Your task to perform on an android device: uninstall "Pluto TV - Live TV and Movies" Image 0: 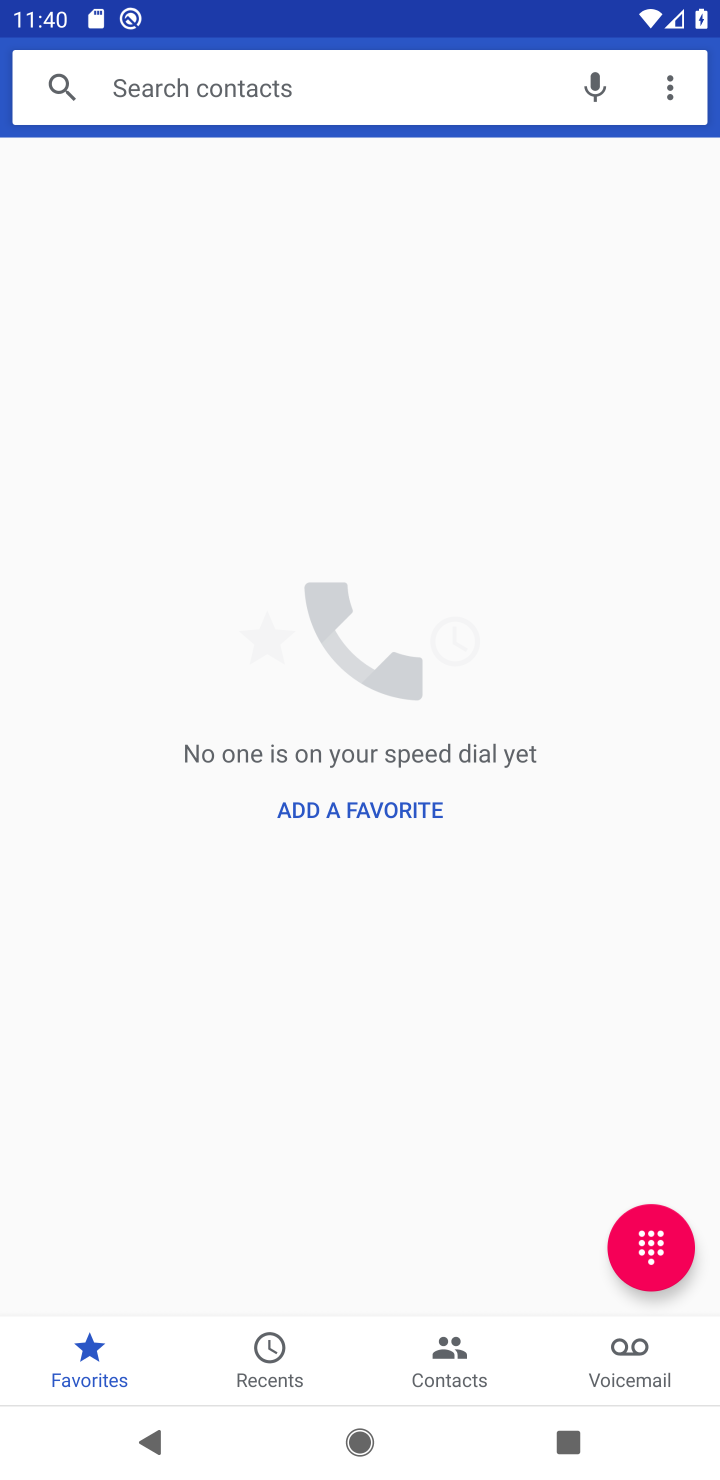
Step 0: press home button
Your task to perform on an android device: uninstall "Pluto TV - Live TV and Movies" Image 1: 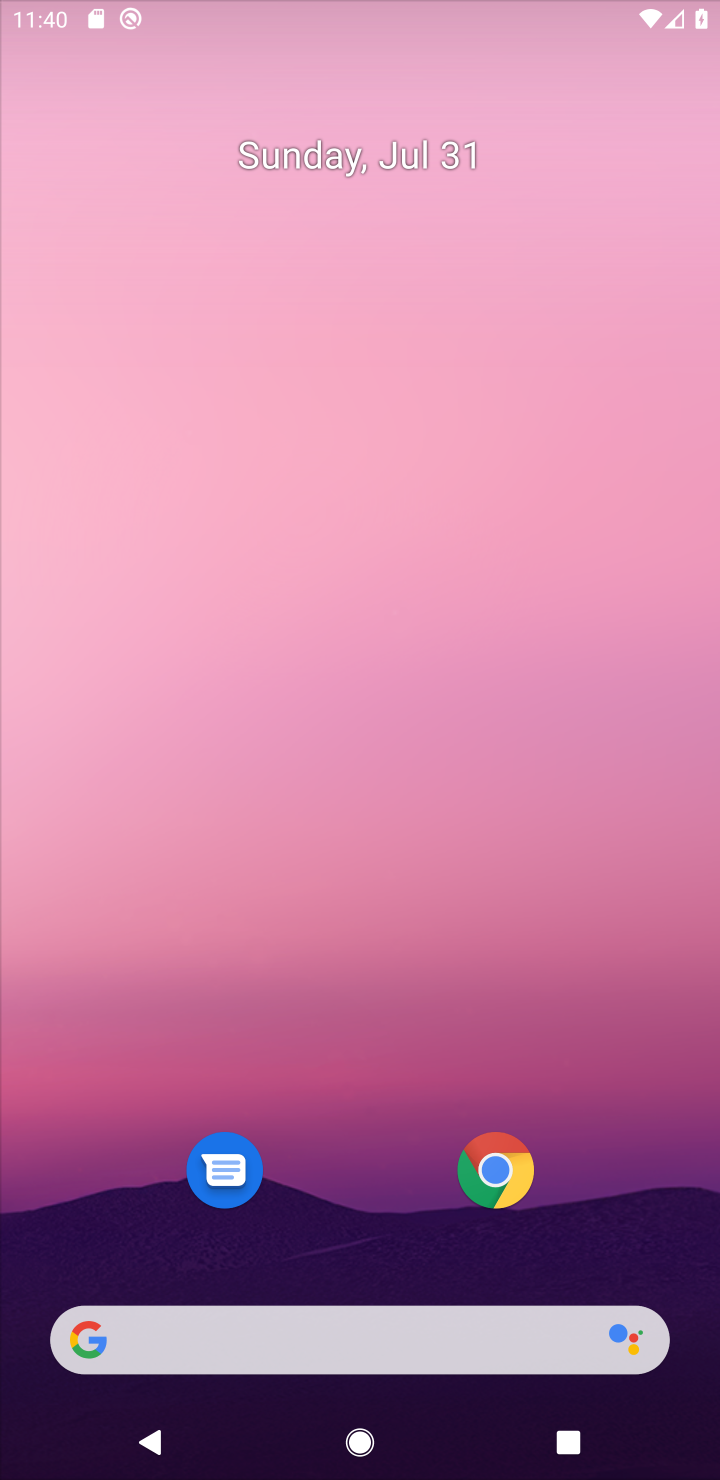
Step 1: drag from (577, 927) to (300, 66)
Your task to perform on an android device: uninstall "Pluto TV - Live TV and Movies" Image 2: 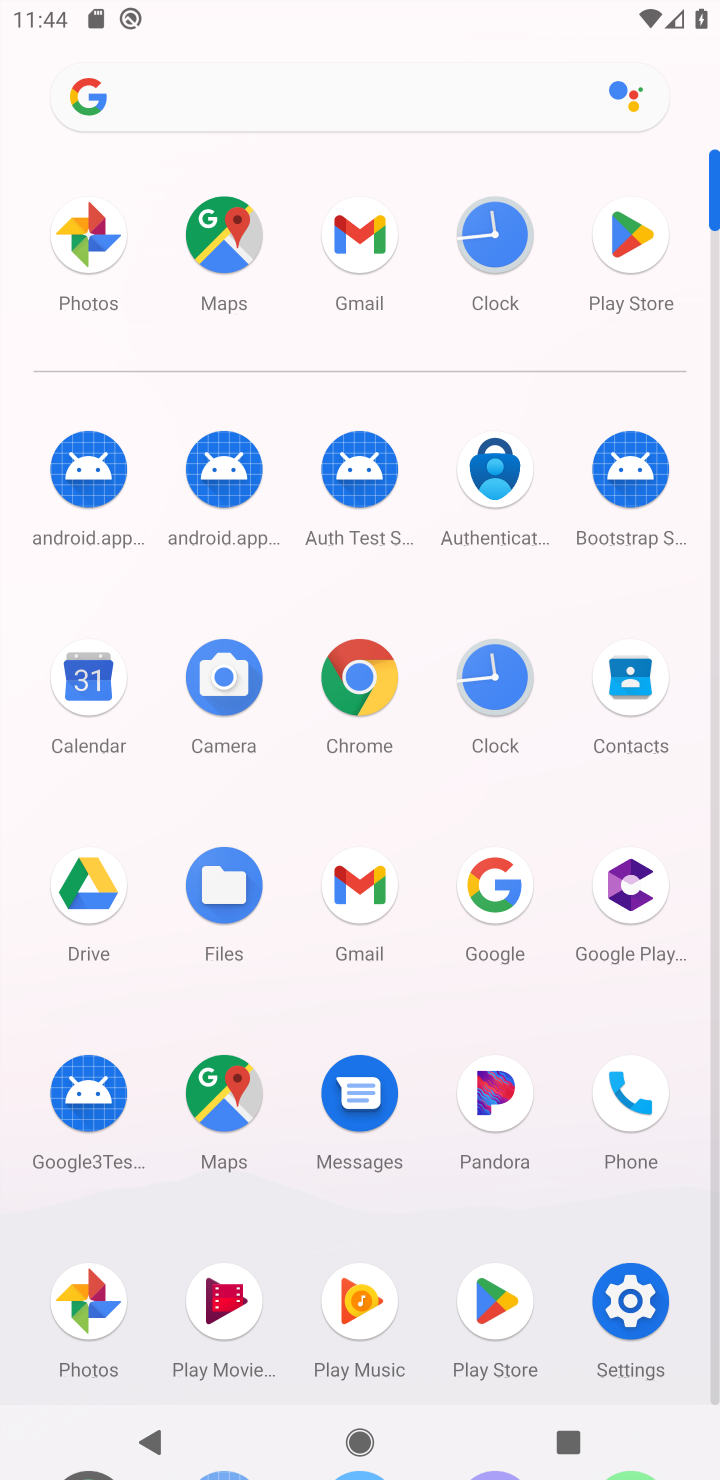
Step 2: click (610, 261)
Your task to perform on an android device: uninstall "Pluto TV - Live TV and Movies" Image 3: 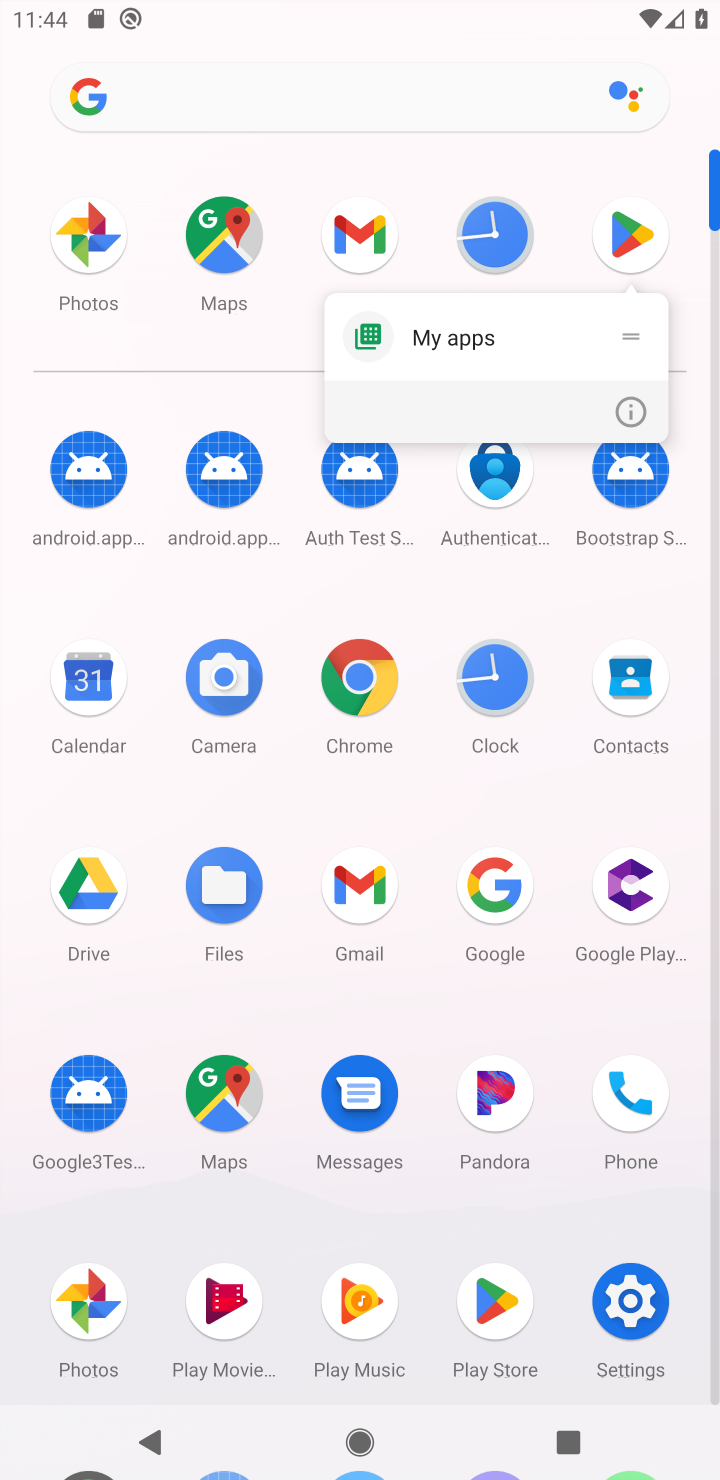
Step 3: click (605, 261)
Your task to perform on an android device: uninstall "Pluto TV - Live TV and Movies" Image 4: 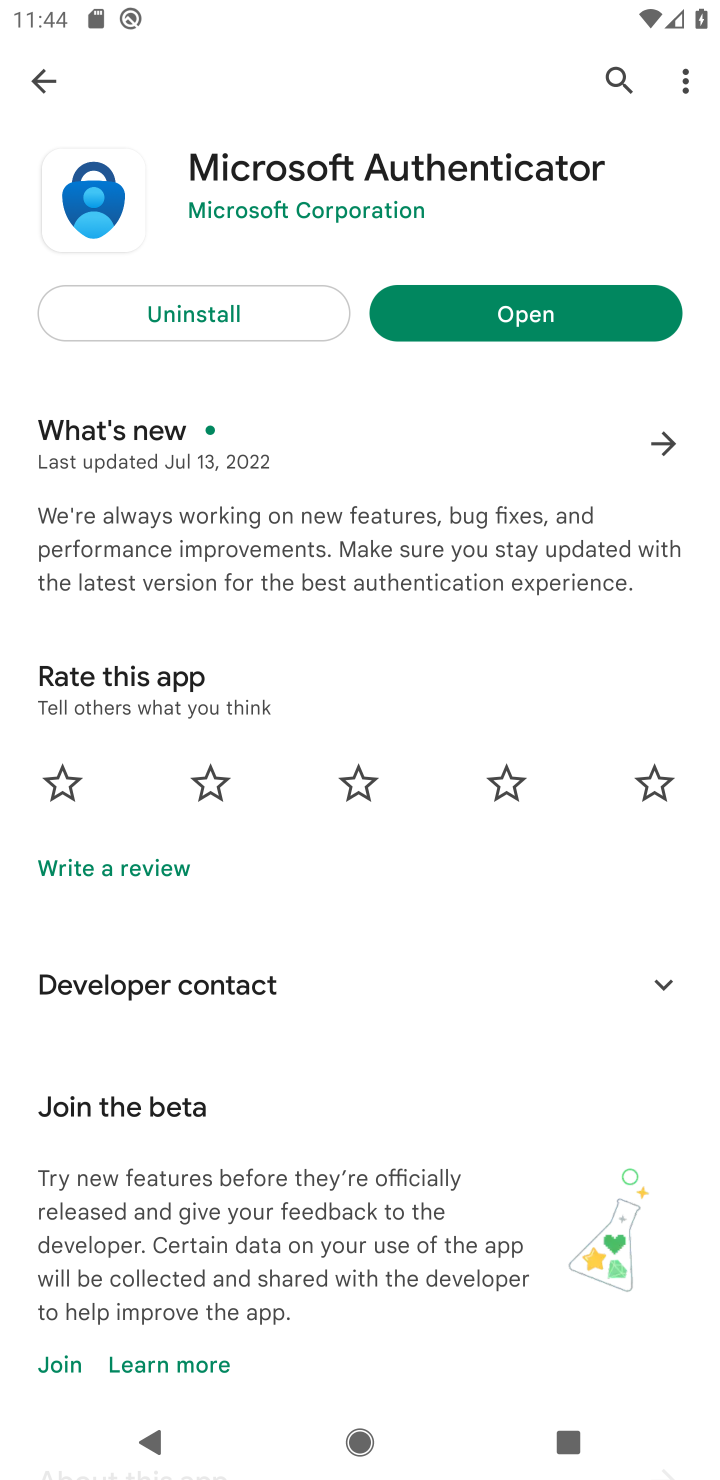
Step 4: press back button
Your task to perform on an android device: uninstall "Pluto TV - Live TV and Movies" Image 5: 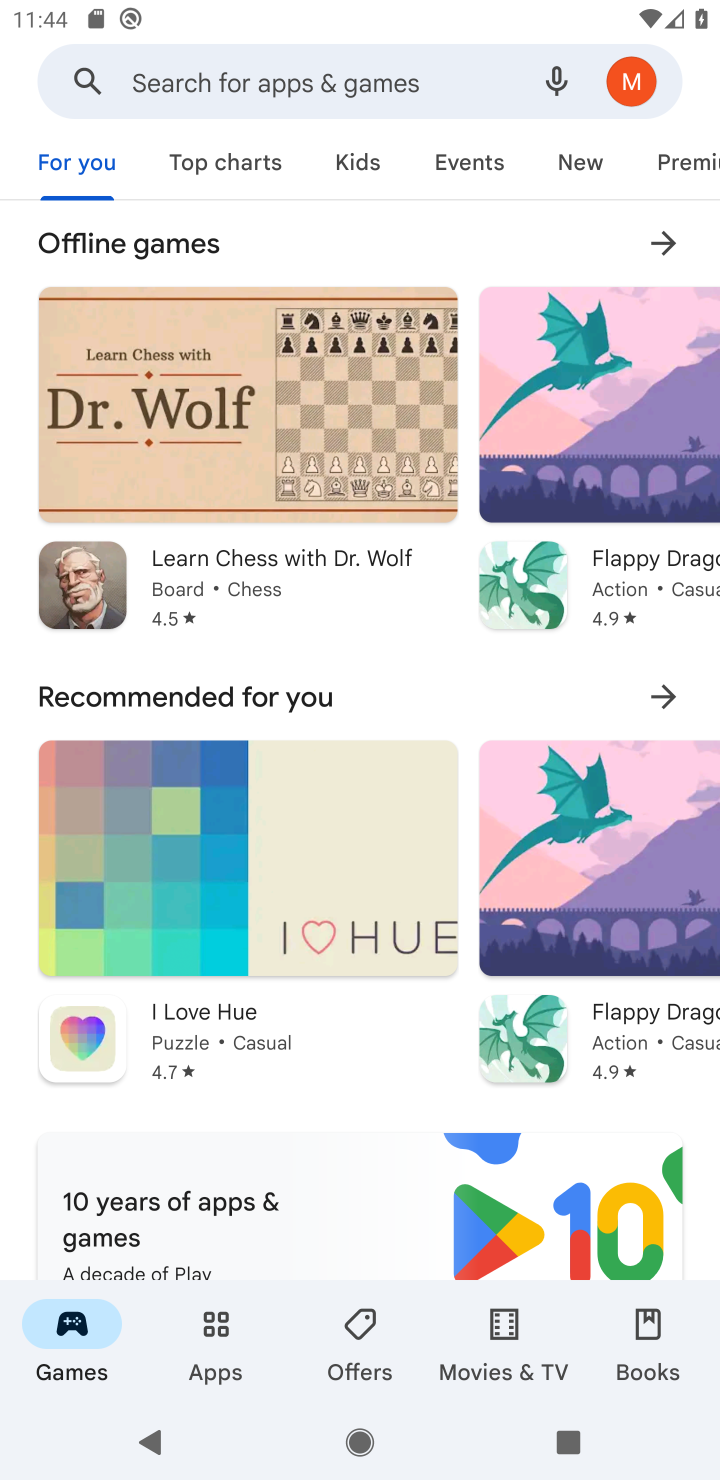
Step 5: click (308, 106)
Your task to perform on an android device: uninstall "Pluto TV - Live TV and Movies" Image 6: 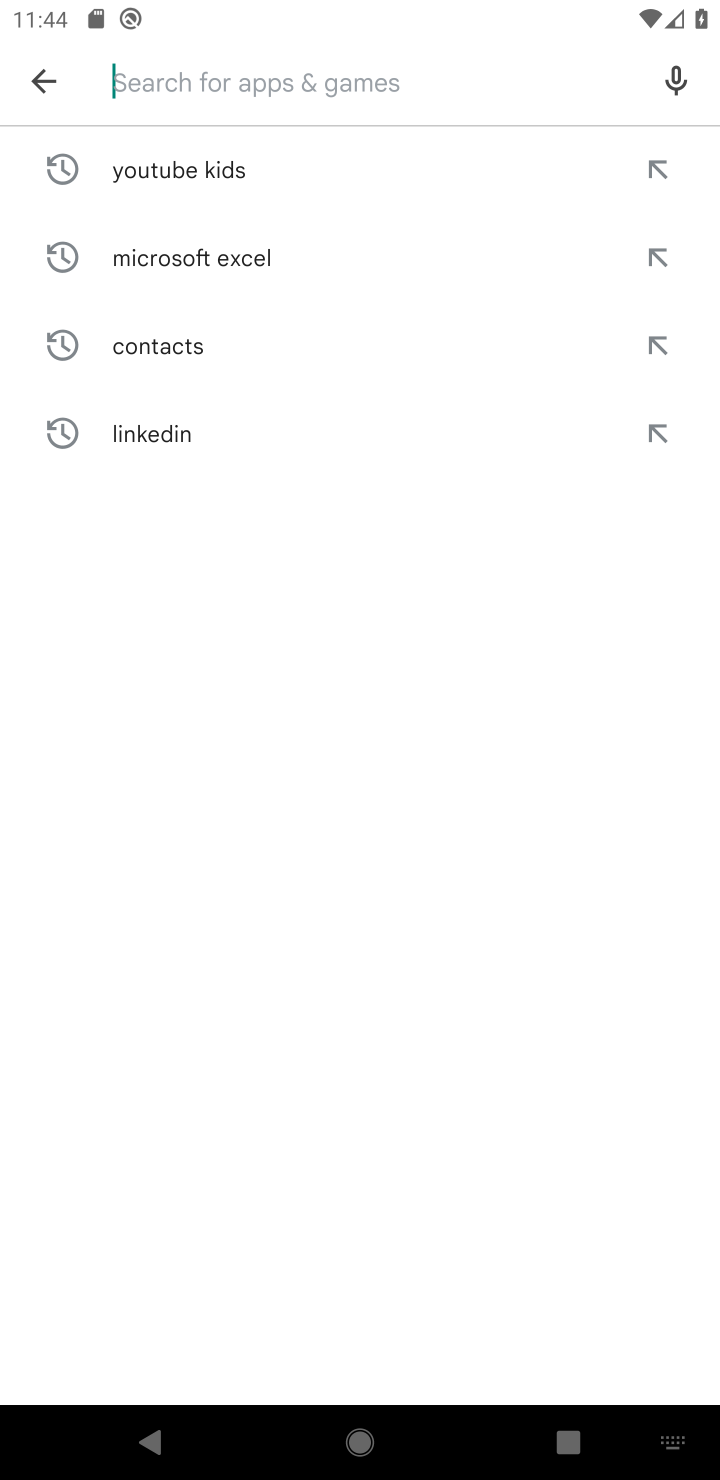
Step 6: type "Pluto TV - Live TV and Movies"
Your task to perform on an android device: uninstall "Pluto TV - Live TV and Movies" Image 7: 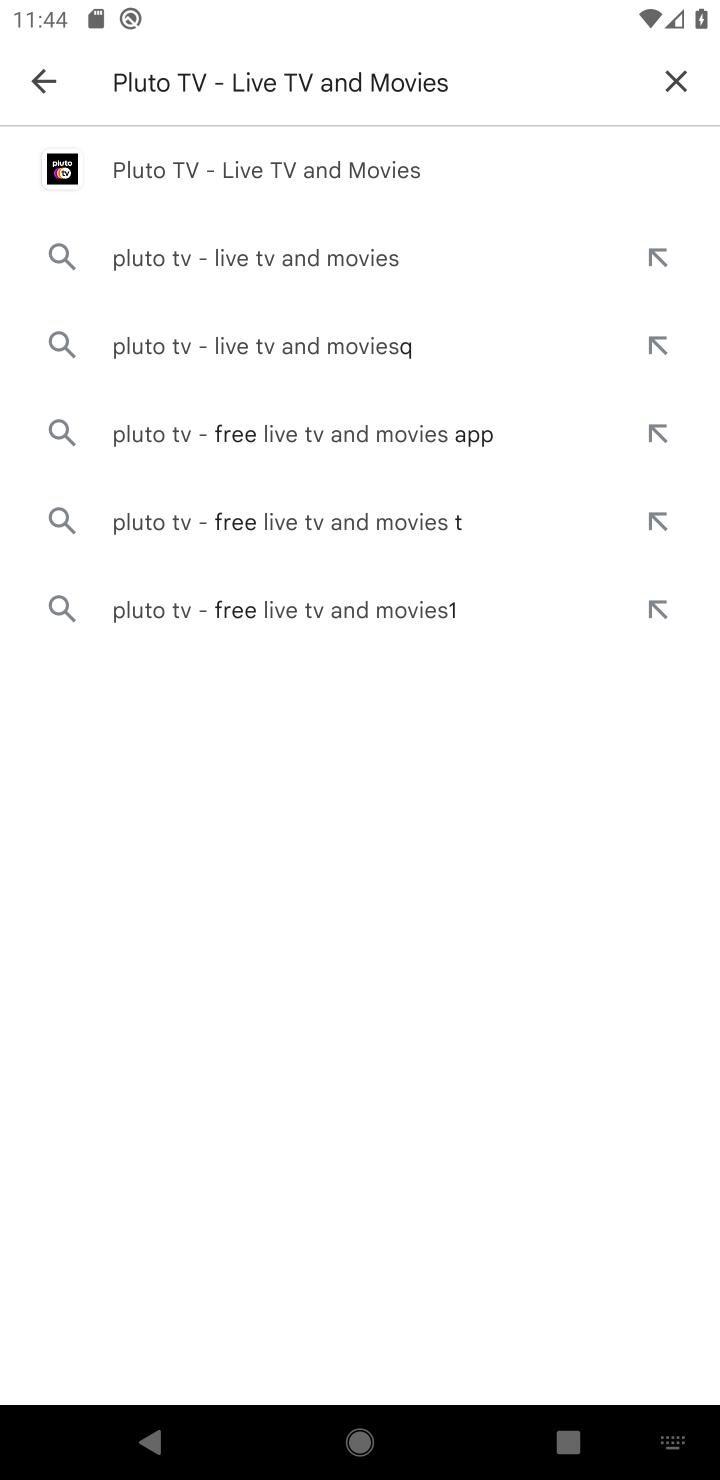
Step 7: click (294, 162)
Your task to perform on an android device: uninstall "Pluto TV - Live TV and Movies" Image 8: 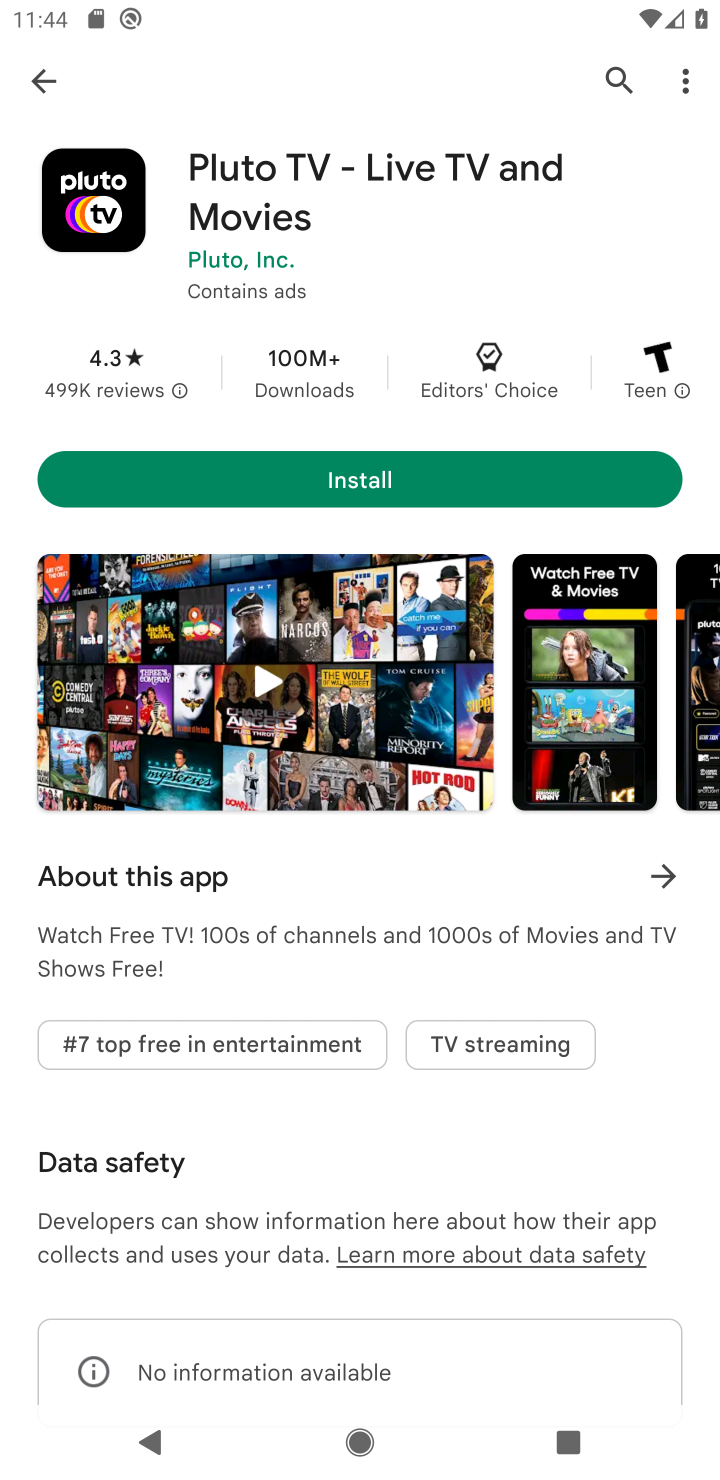
Step 8: task complete